Your task to perform on an android device: Open the web browser Image 0: 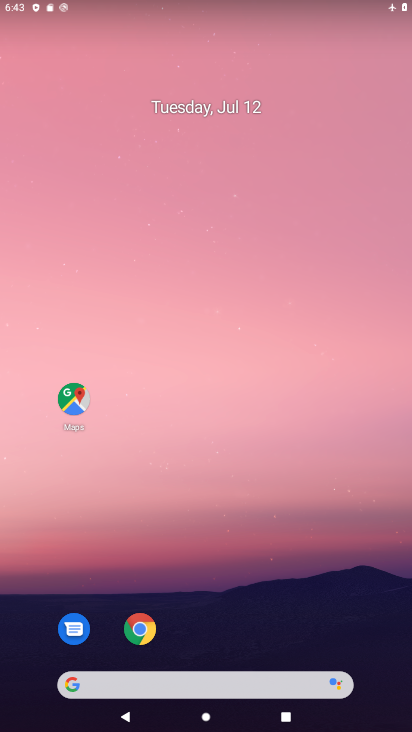
Step 0: click (136, 633)
Your task to perform on an android device: Open the web browser Image 1: 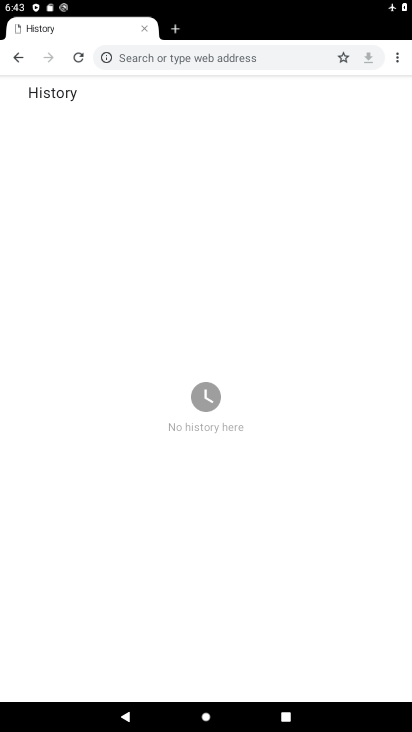
Step 1: task complete